Your task to perform on an android device: turn on location history Image 0: 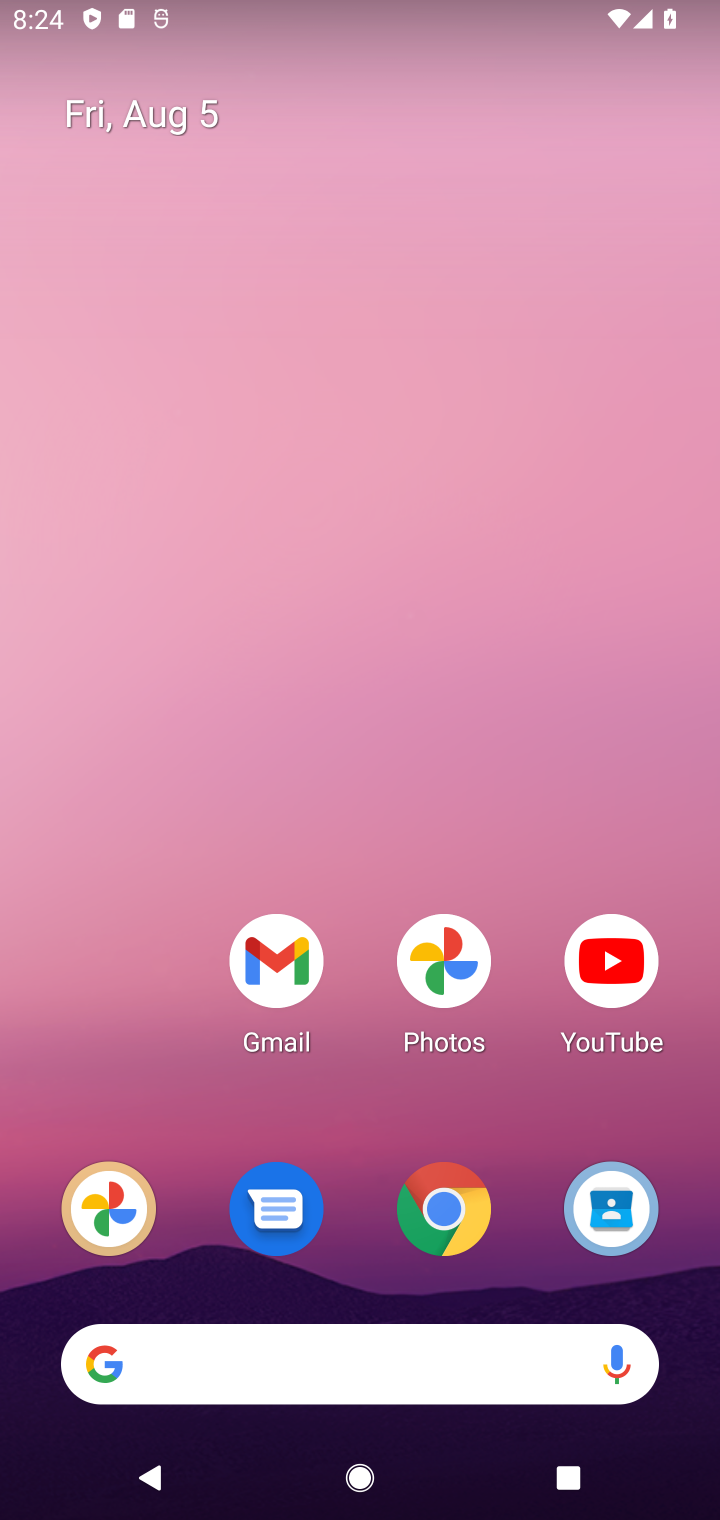
Step 0: drag from (533, 1130) to (428, 125)
Your task to perform on an android device: turn on location history Image 1: 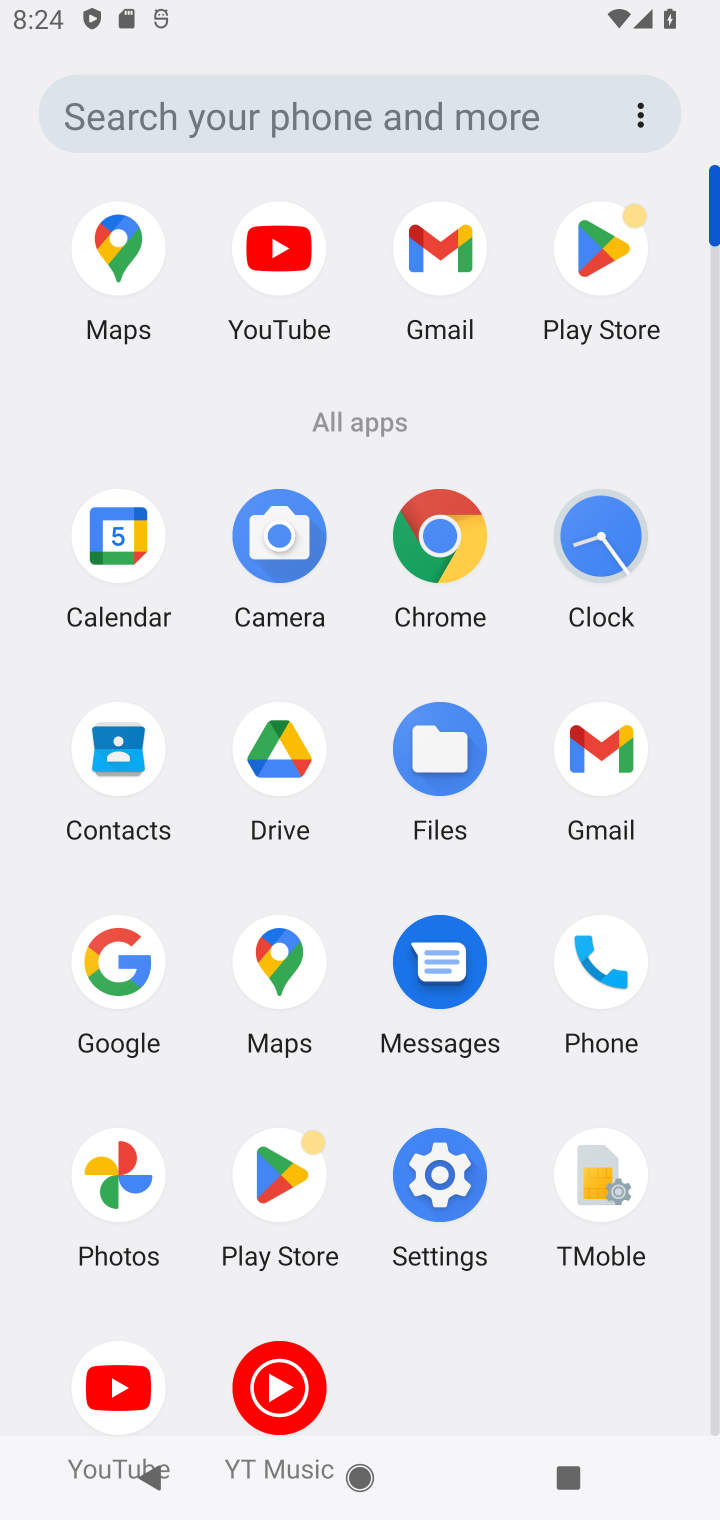
Step 1: click (127, 268)
Your task to perform on an android device: turn on location history Image 2: 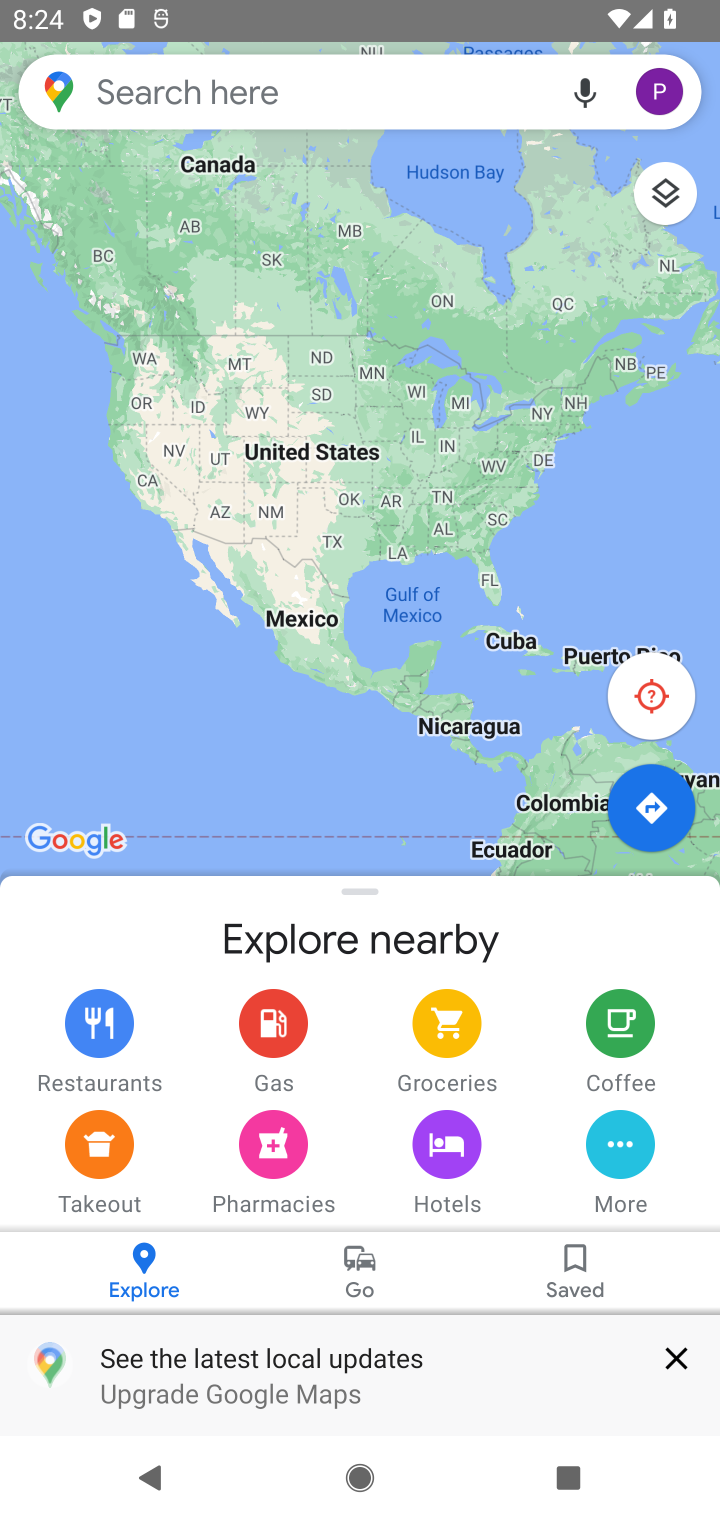
Step 2: click (655, 82)
Your task to perform on an android device: turn on location history Image 3: 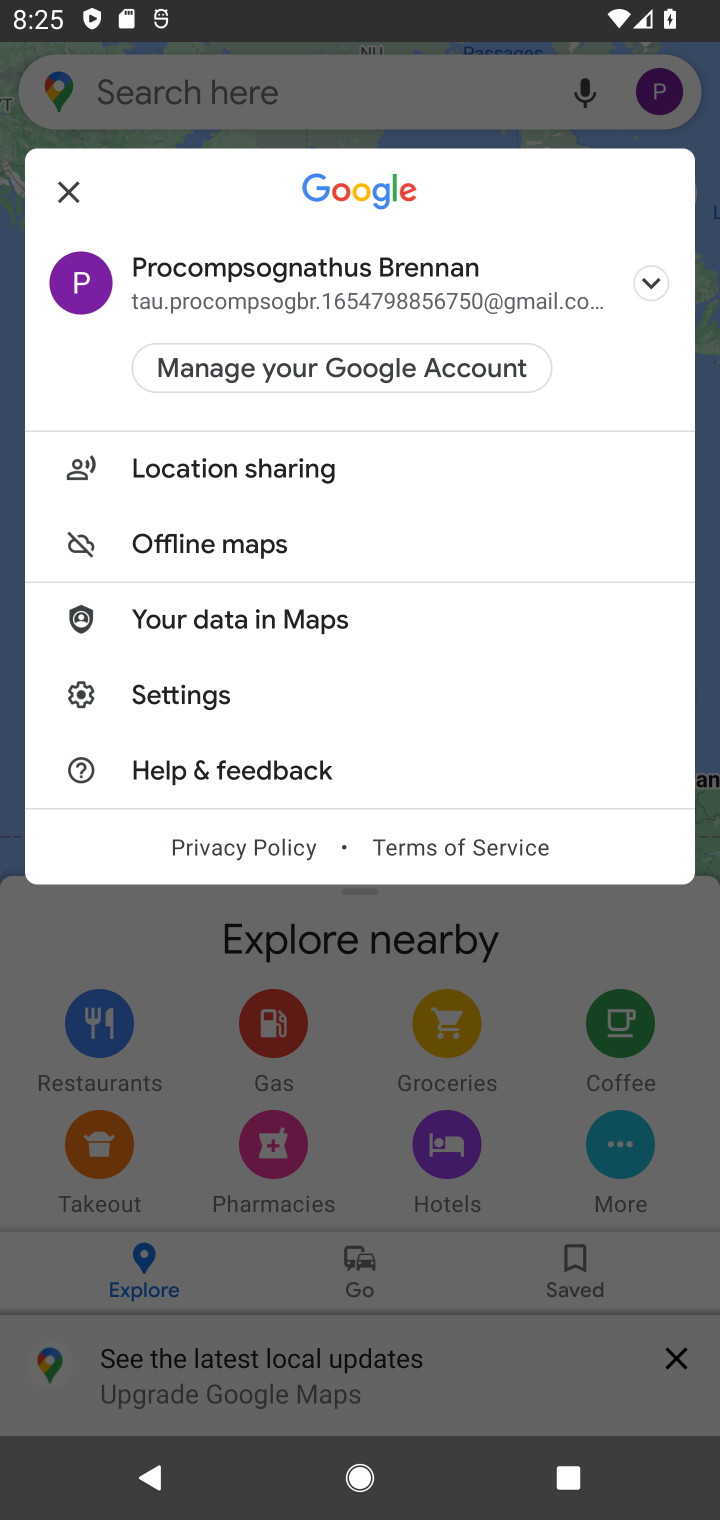
Step 3: click (247, 701)
Your task to perform on an android device: turn on location history Image 4: 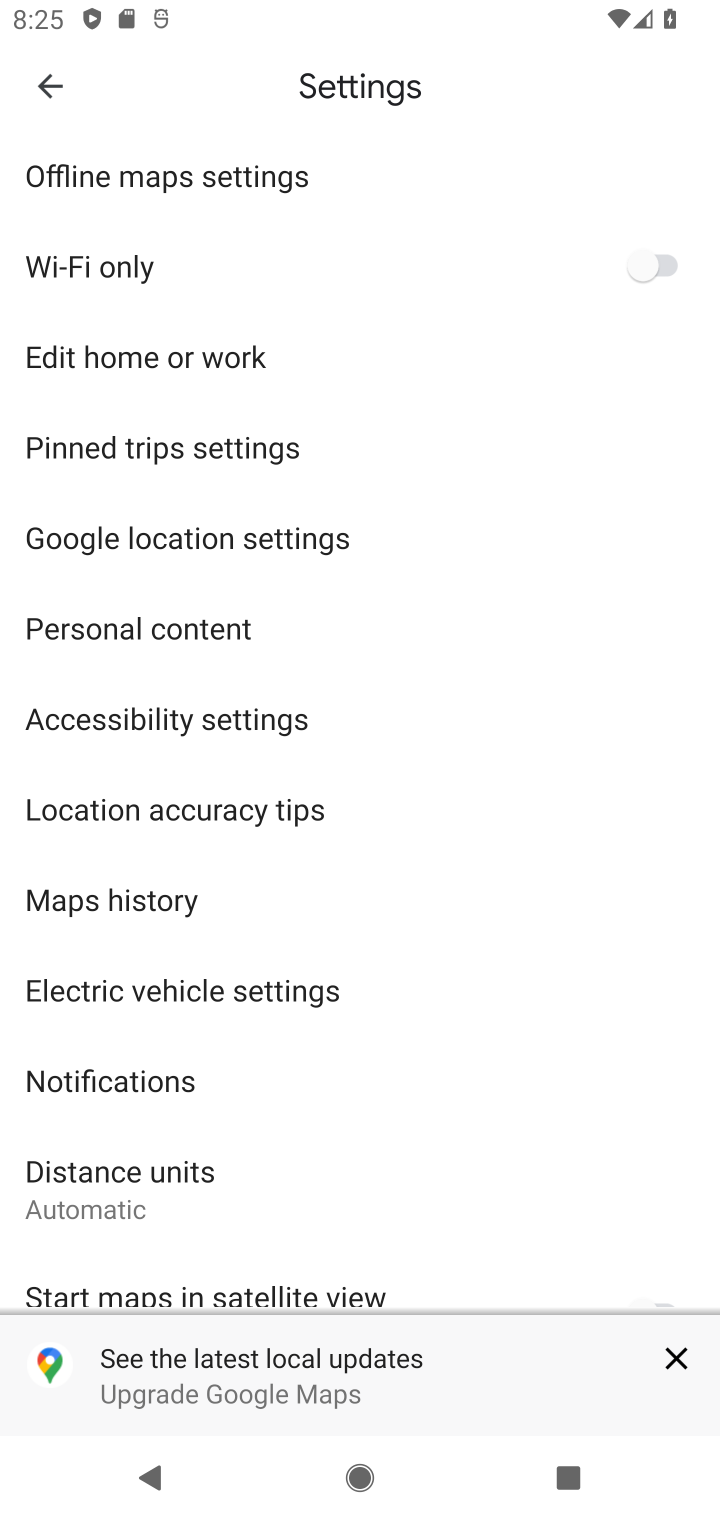
Step 4: task complete